Your task to perform on an android device: Show me popular videos on Youtube Image 0: 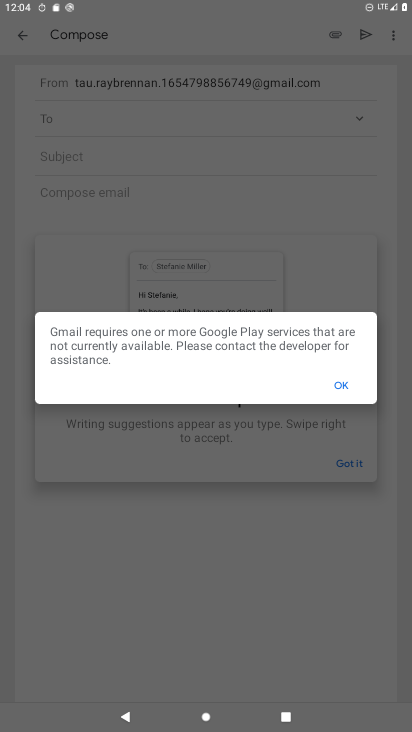
Step 0: press home button
Your task to perform on an android device: Show me popular videos on Youtube Image 1: 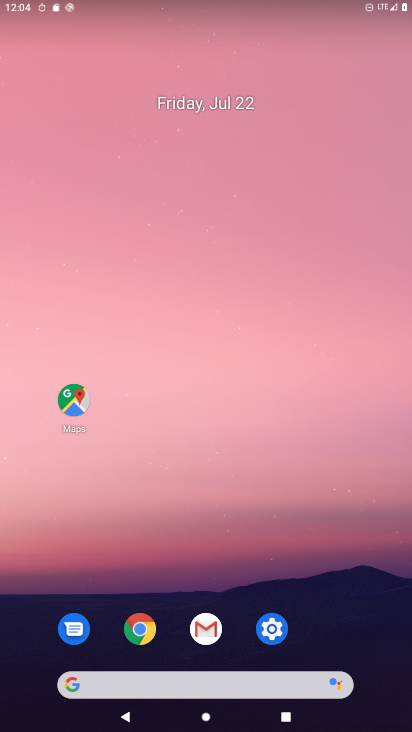
Step 1: drag from (313, 714) to (263, 204)
Your task to perform on an android device: Show me popular videos on Youtube Image 2: 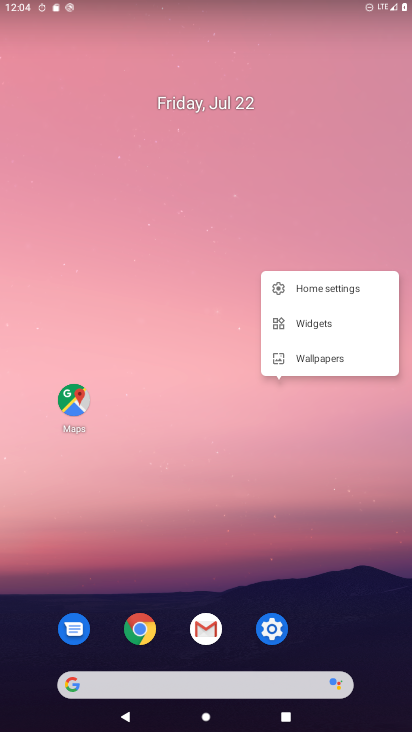
Step 2: click (158, 294)
Your task to perform on an android device: Show me popular videos on Youtube Image 3: 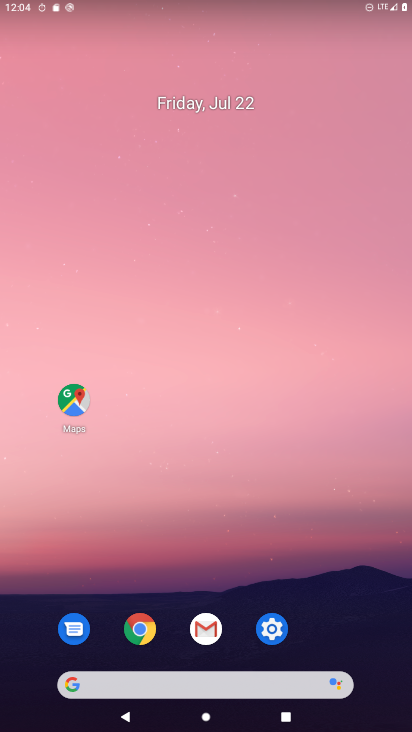
Step 3: drag from (292, 679) to (316, 284)
Your task to perform on an android device: Show me popular videos on Youtube Image 4: 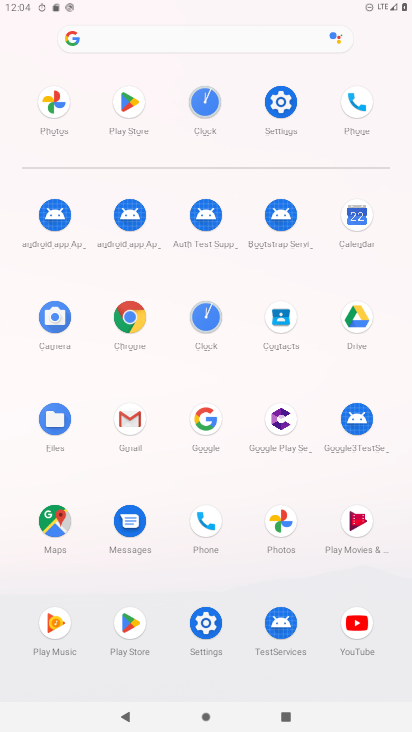
Step 4: click (364, 619)
Your task to perform on an android device: Show me popular videos on Youtube Image 5: 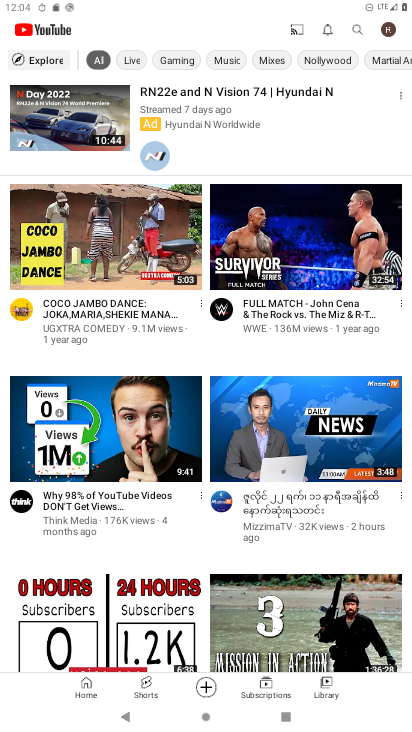
Step 5: click (355, 30)
Your task to perform on an android device: Show me popular videos on Youtube Image 6: 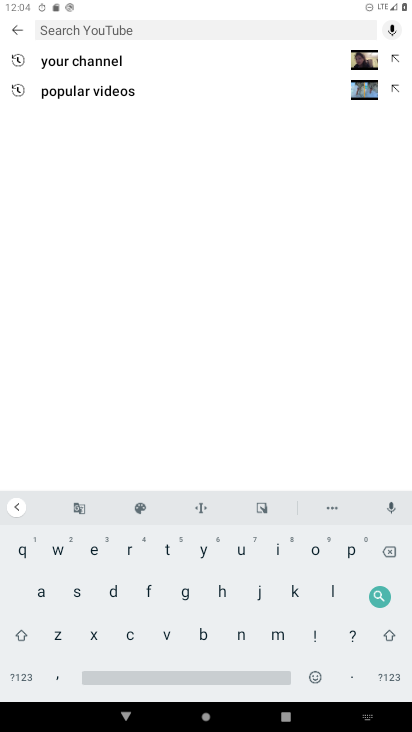
Step 6: click (119, 92)
Your task to perform on an android device: Show me popular videos on Youtube Image 7: 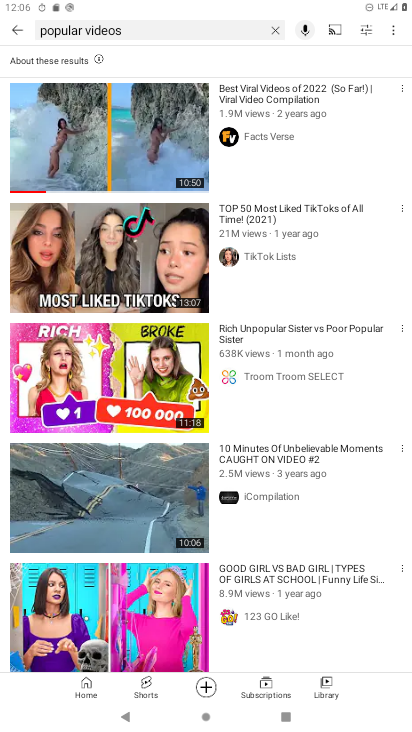
Step 7: task complete